Your task to perform on an android device: Open Amazon Image 0: 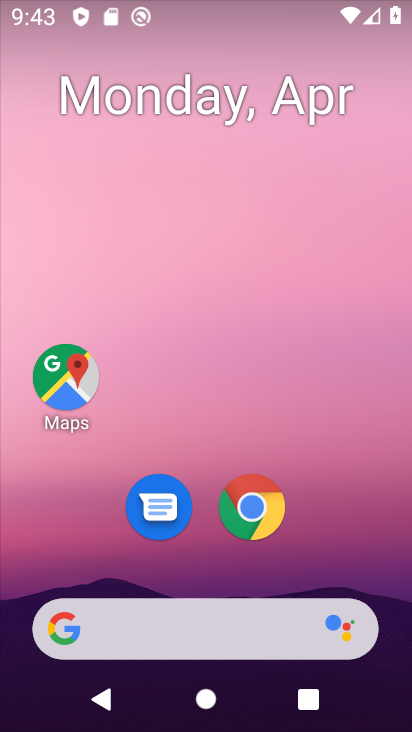
Step 0: click (264, 505)
Your task to perform on an android device: Open Amazon Image 1: 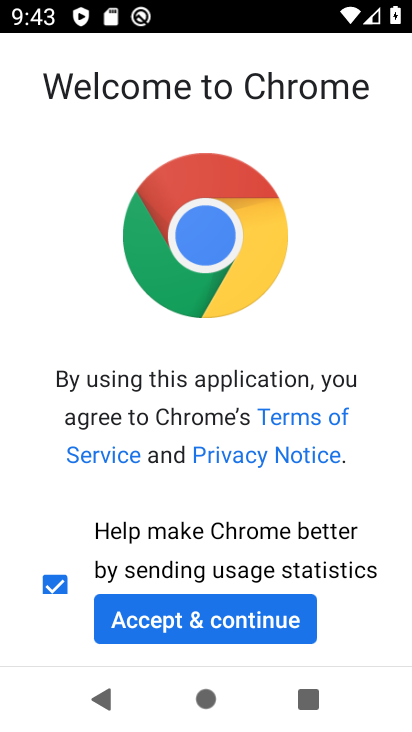
Step 1: click (269, 616)
Your task to perform on an android device: Open Amazon Image 2: 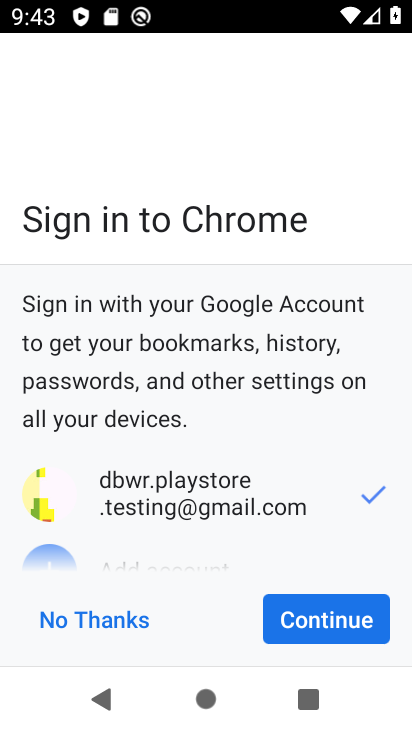
Step 2: click (288, 607)
Your task to perform on an android device: Open Amazon Image 3: 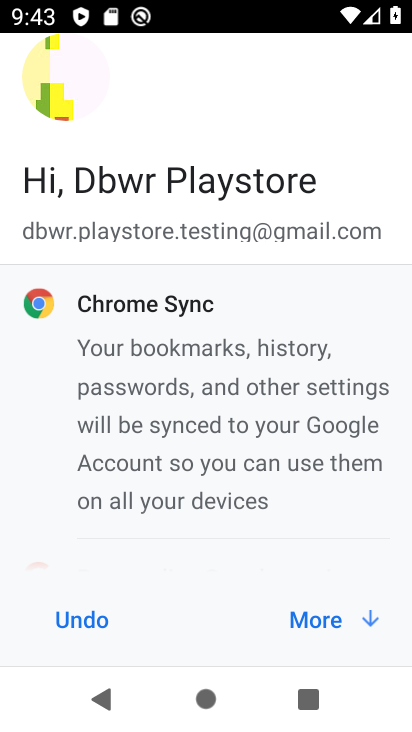
Step 3: click (288, 607)
Your task to perform on an android device: Open Amazon Image 4: 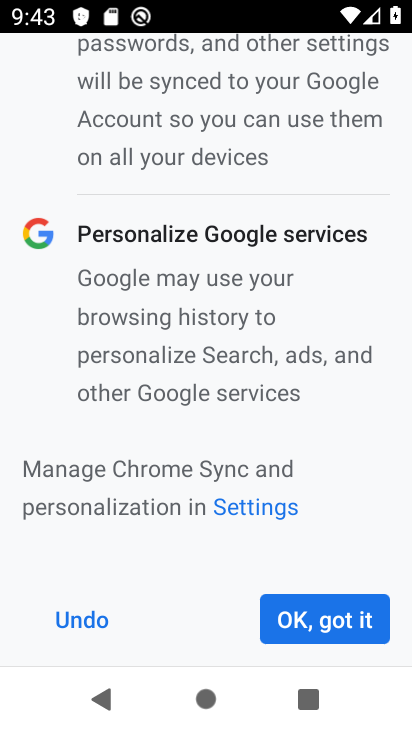
Step 4: click (288, 607)
Your task to perform on an android device: Open Amazon Image 5: 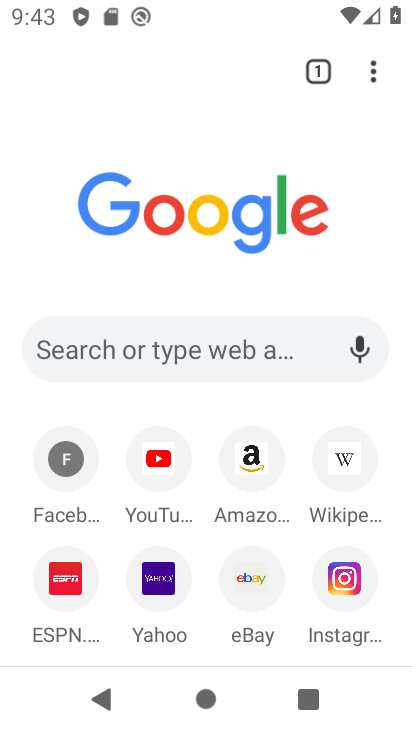
Step 5: click (262, 446)
Your task to perform on an android device: Open Amazon Image 6: 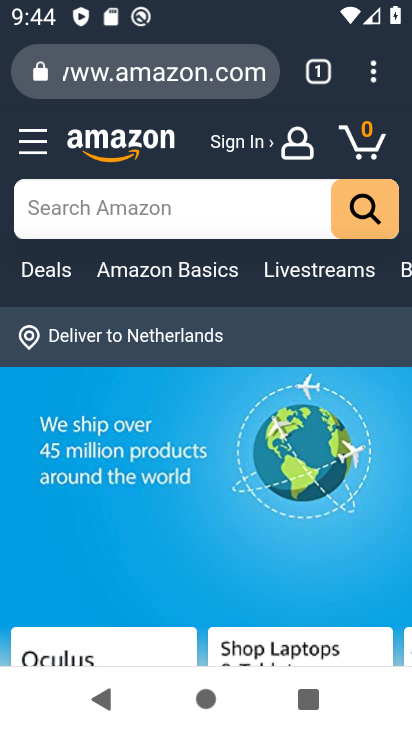
Step 6: task complete